Your task to perform on an android device: Find the nearest electronics store that's open Image 0: 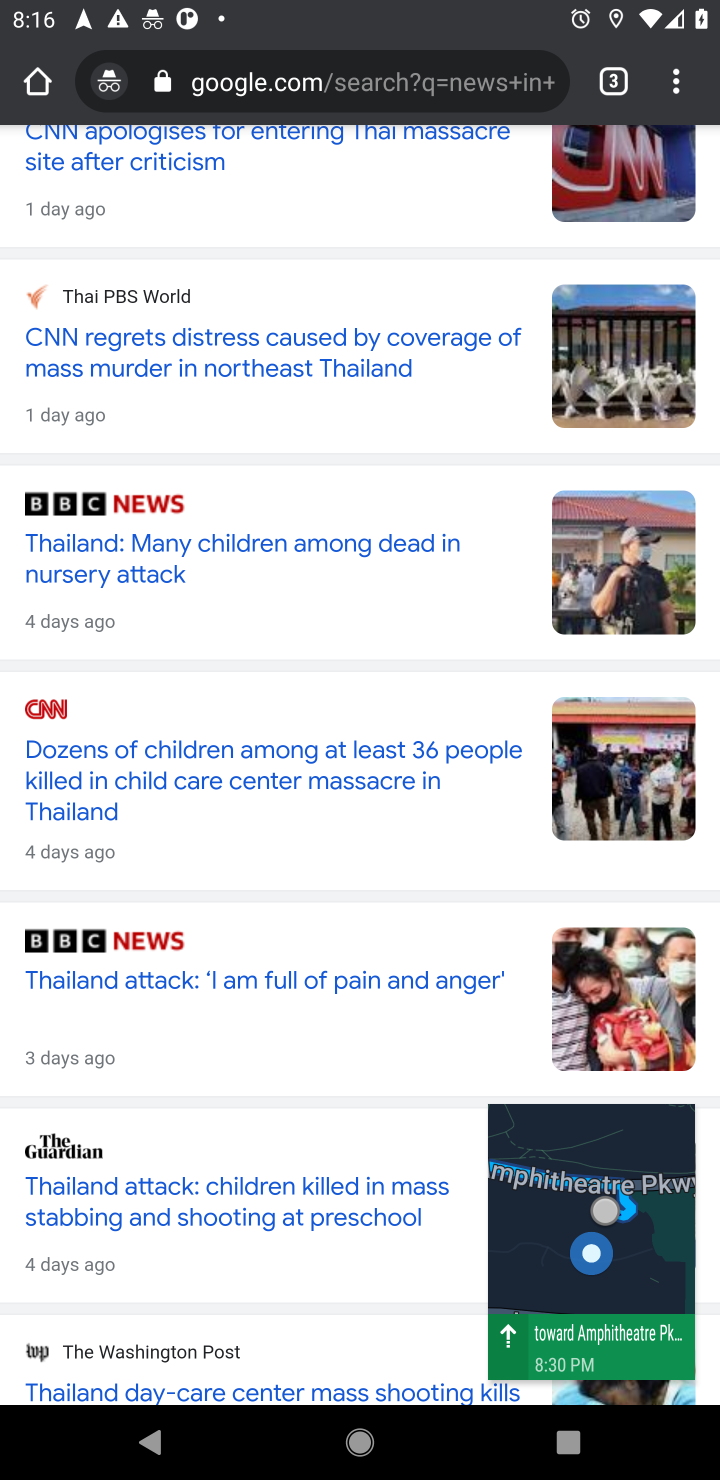
Step 0: press home button
Your task to perform on an android device: Find the nearest electronics store that's open Image 1: 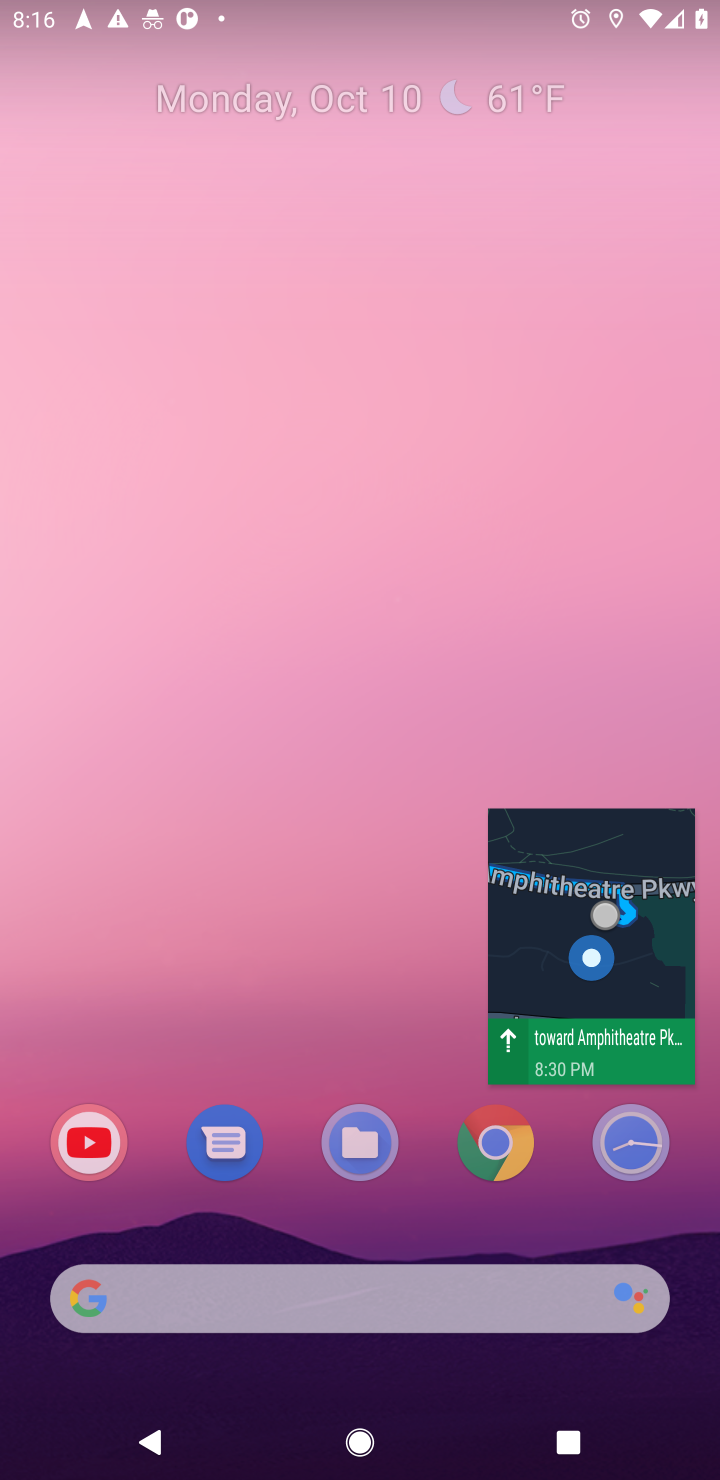
Step 1: drag from (598, 1159) to (511, 1122)
Your task to perform on an android device: Find the nearest electronics store that's open Image 2: 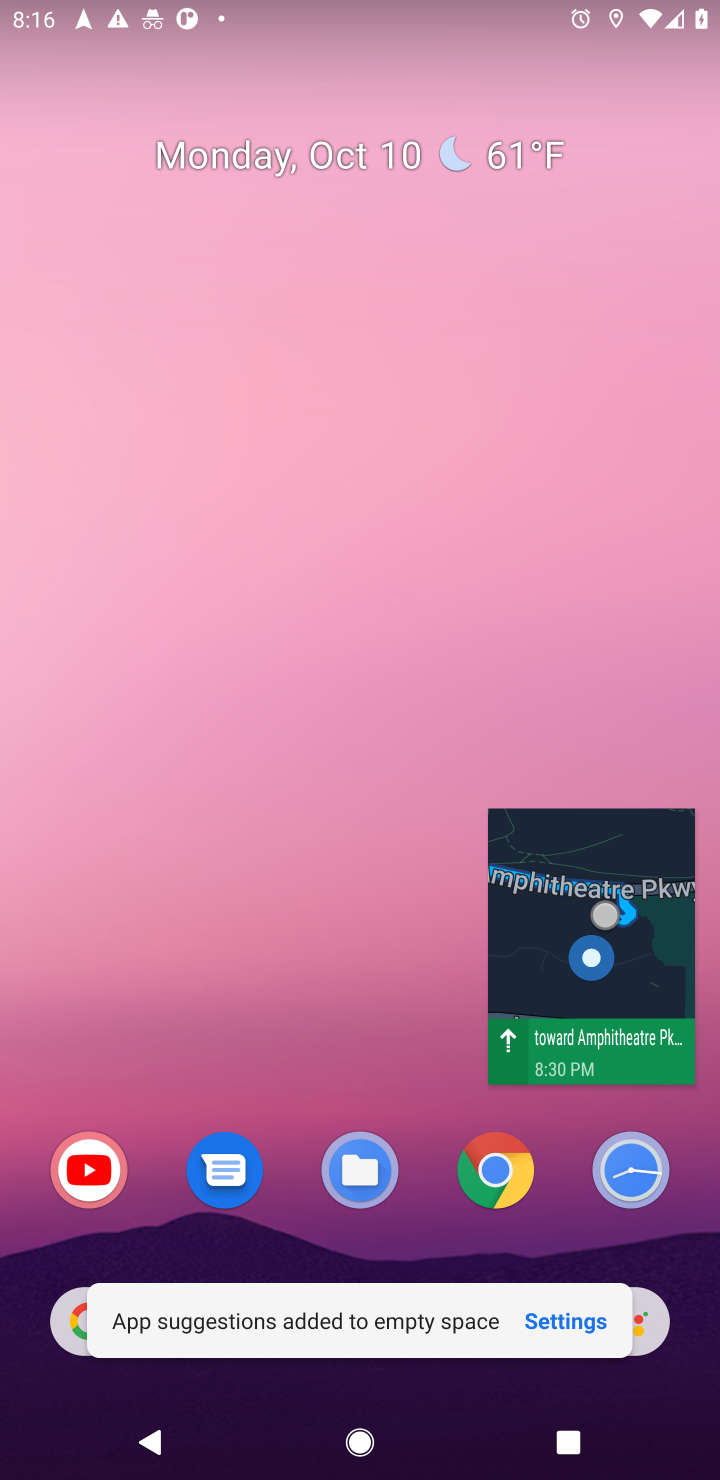
Step 2: drag from (569, 1008) to (366, 1364)
Your task to perform on an android device: Find the nearest electronics store that's open Image 3: 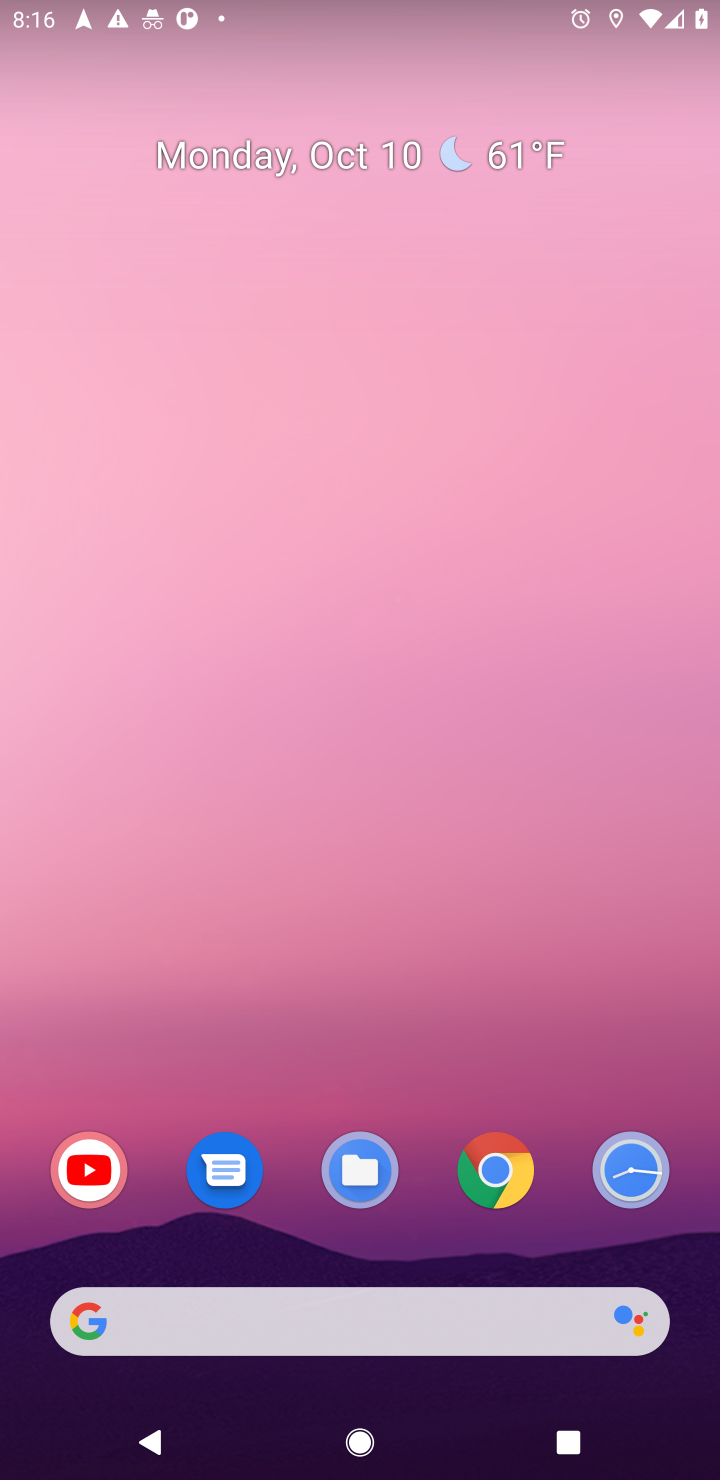
Step 3: click (366, 1364)
Your task to perform on an android device: Find the nearest electronics store that's open Image 4: 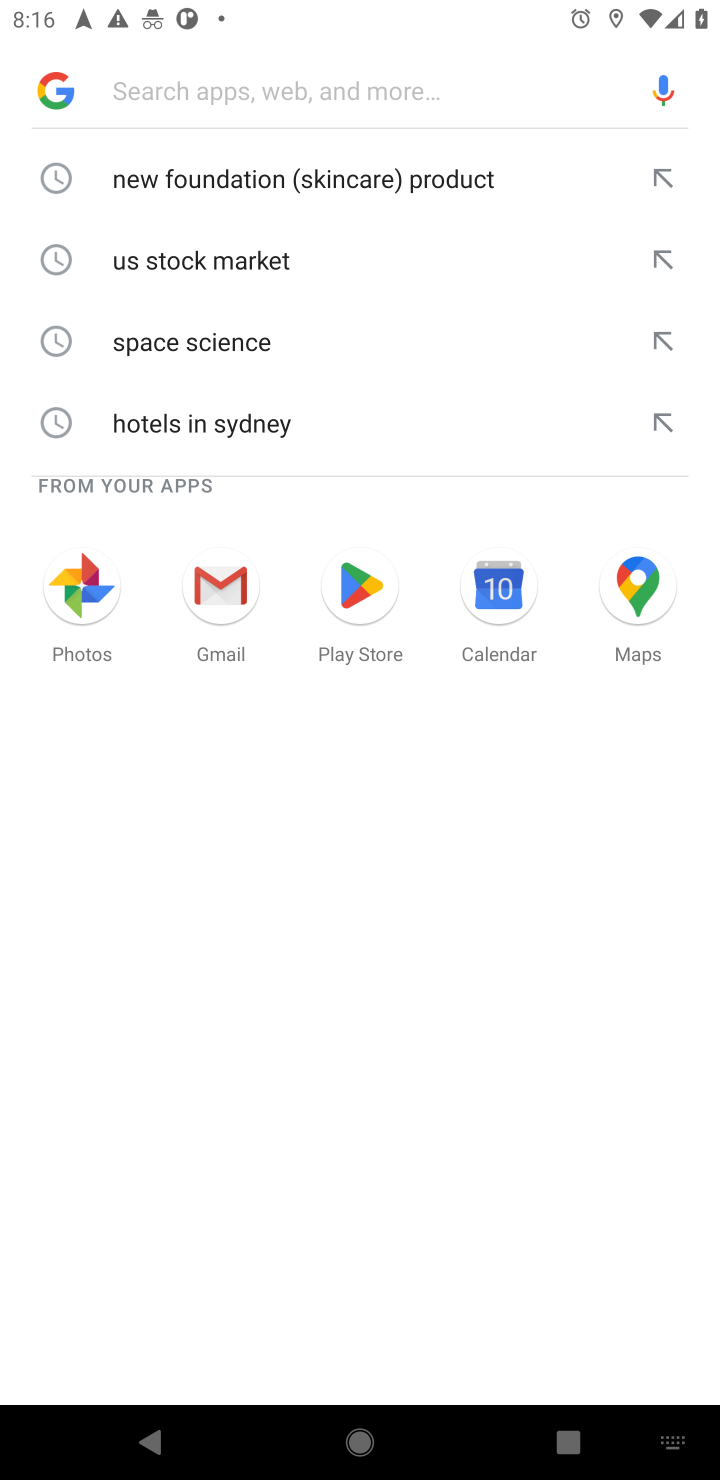
Step 4: press home button
Your task to perform on an android device: Find the nearest electronics store that's open Image 5: 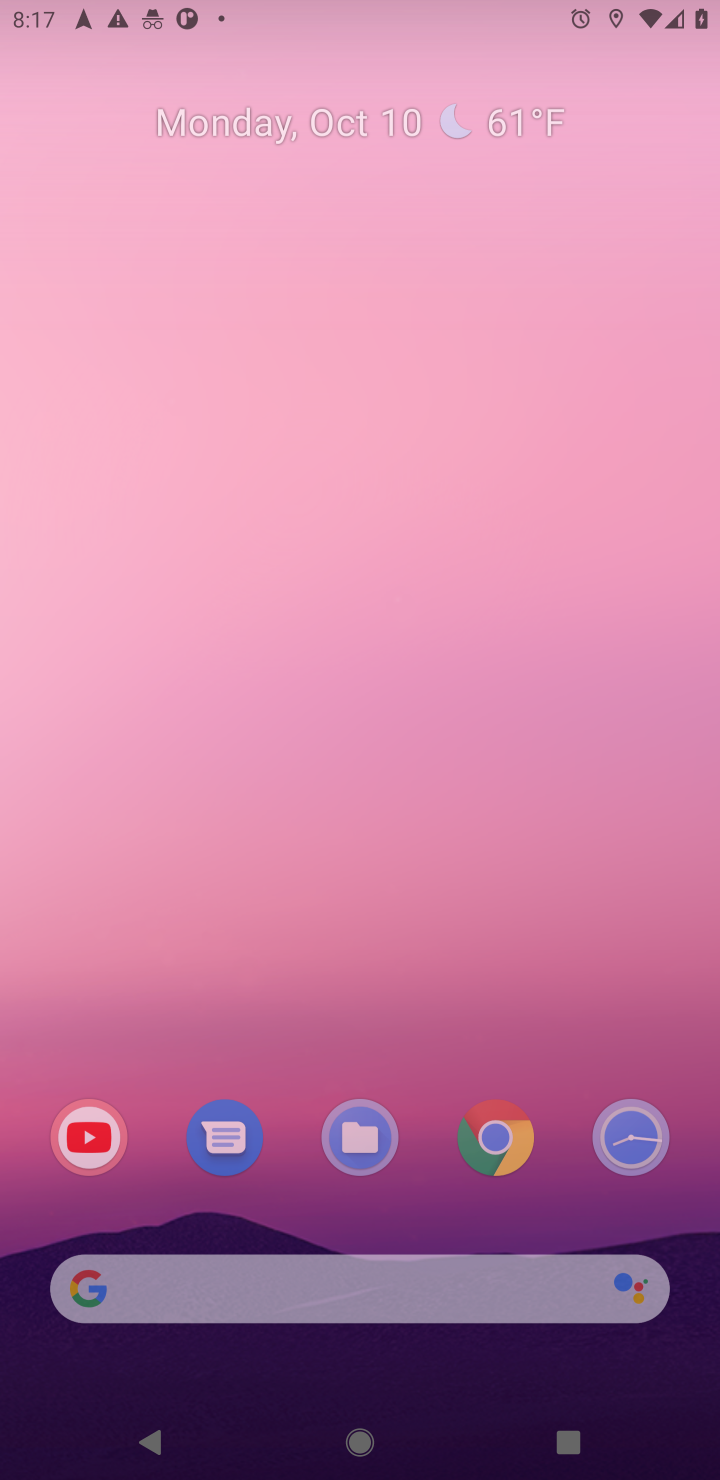
Step 5: press home button
Your task to perform on an android device: Find the nearest electronics store that's open Image 6: 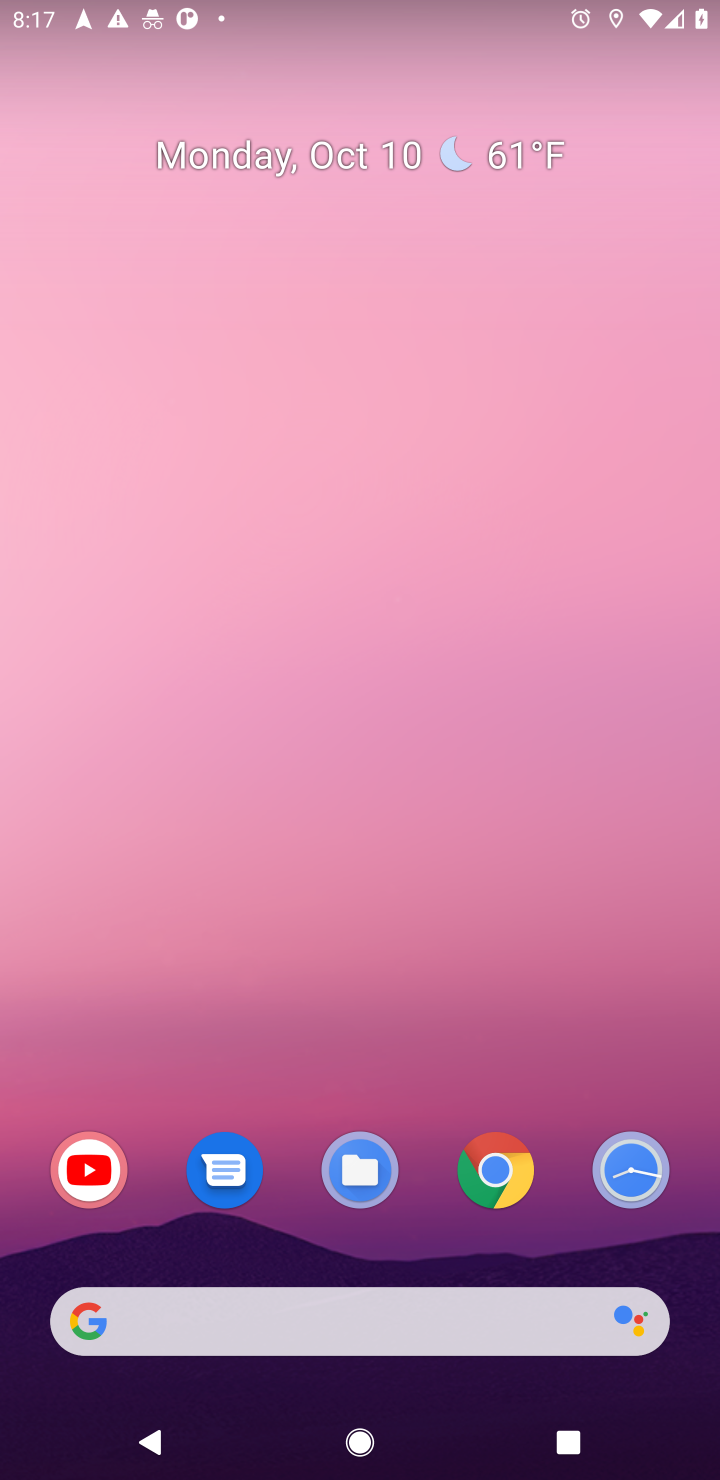
Step 6: click (493, 1179)
Your task to perform on an android device: Find the nearest electronics store that's open Image 7: 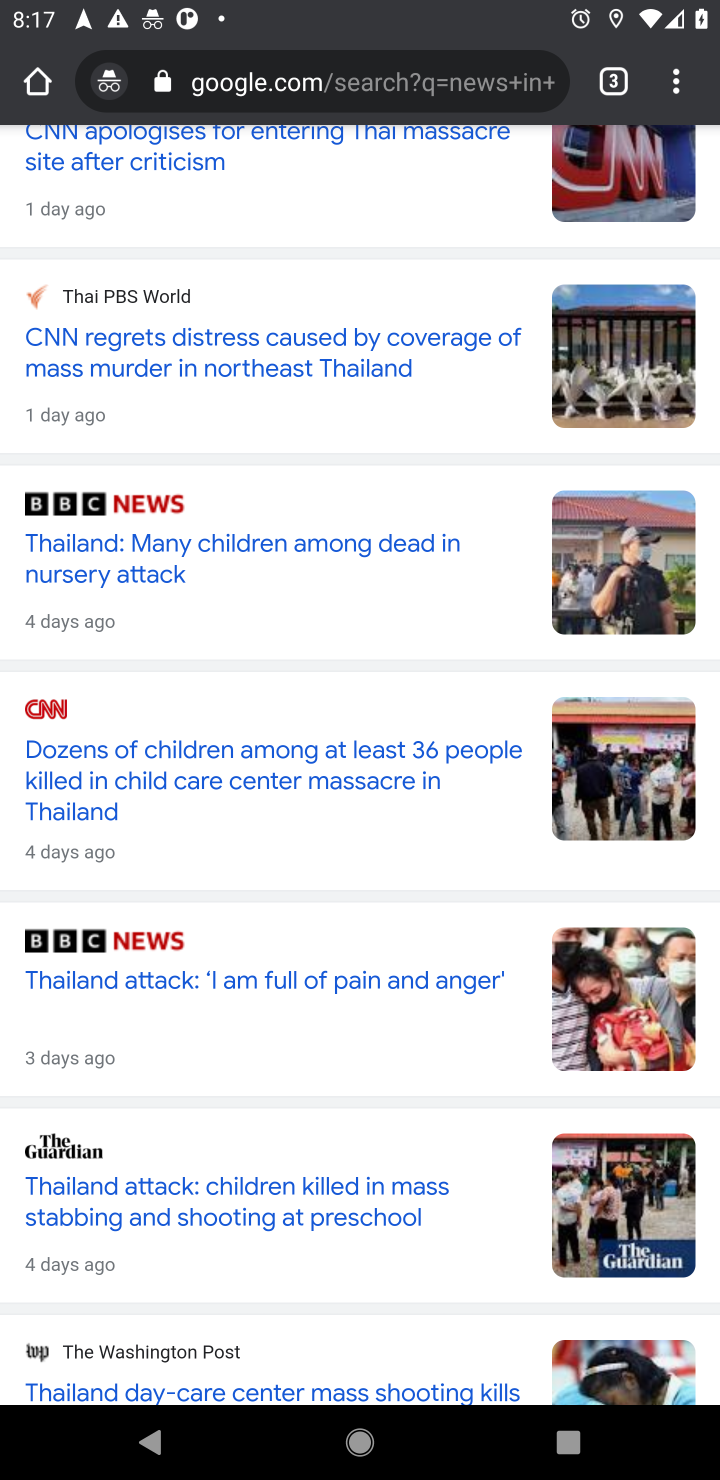
Step 7: click (478, 1169)
Your task to perform on an android device: Find the nearest electronics store that's open Image 8: 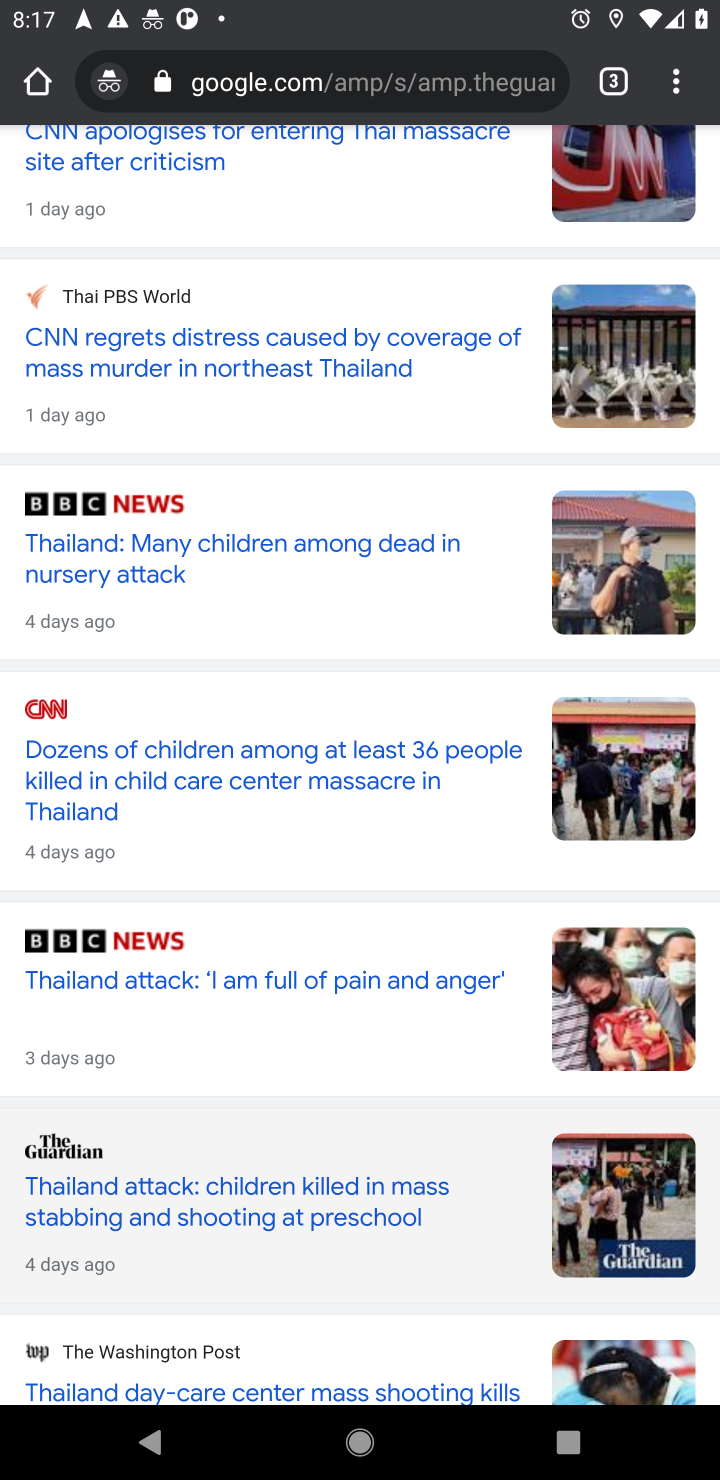
Step 8: click (511, 1186)
Your task to perform on an android device: Find the nearest electronics store that's open Image 9: 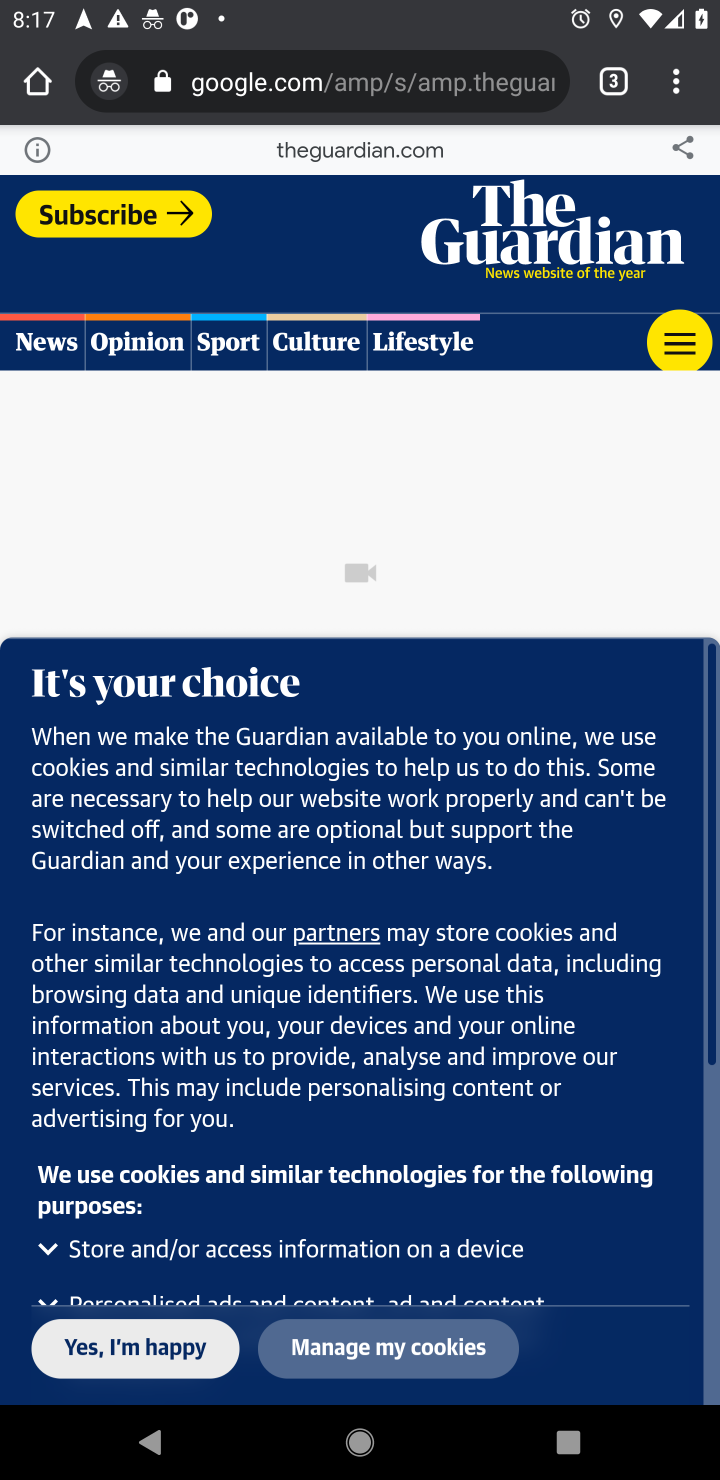
Step 9: click (430, 75)
Your task to perform on an android device: Find the nearest electronics store that's open Image 10: 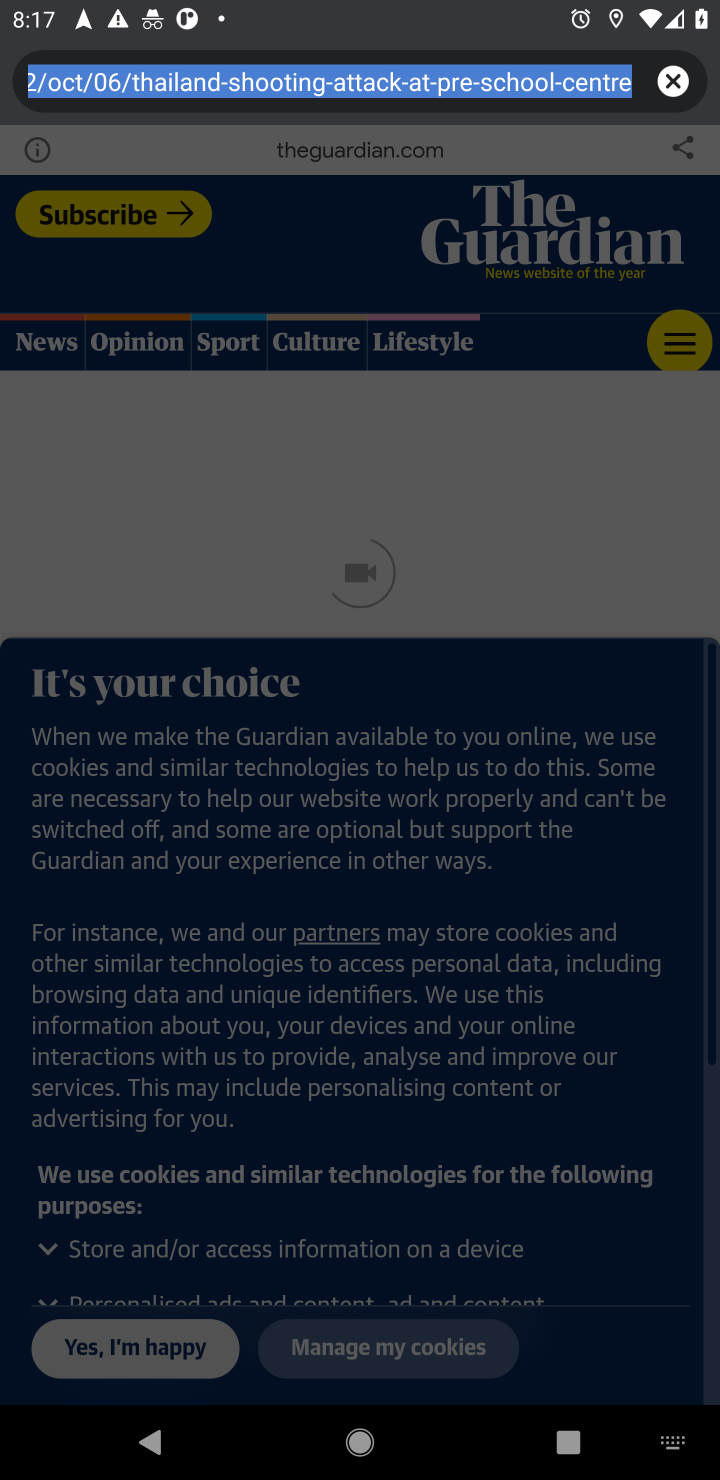
Step 10: type "Find the nearest electronics store that's open"
Your task to perform on an android device: Find the nearest electronics store that's open Image 11: 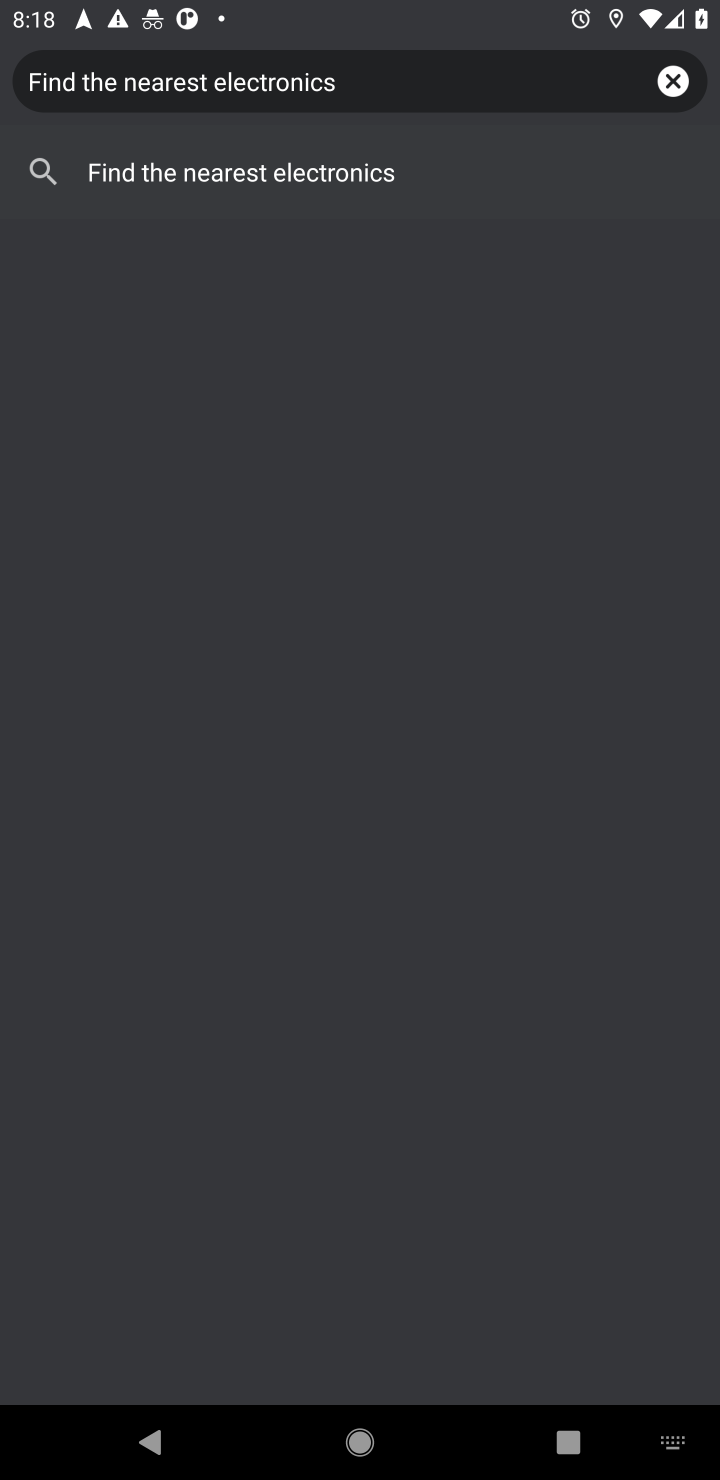
Step 11: type " store that's open"
Your task to perform on an android device: Find the nearest electronics store that's open Image 12: 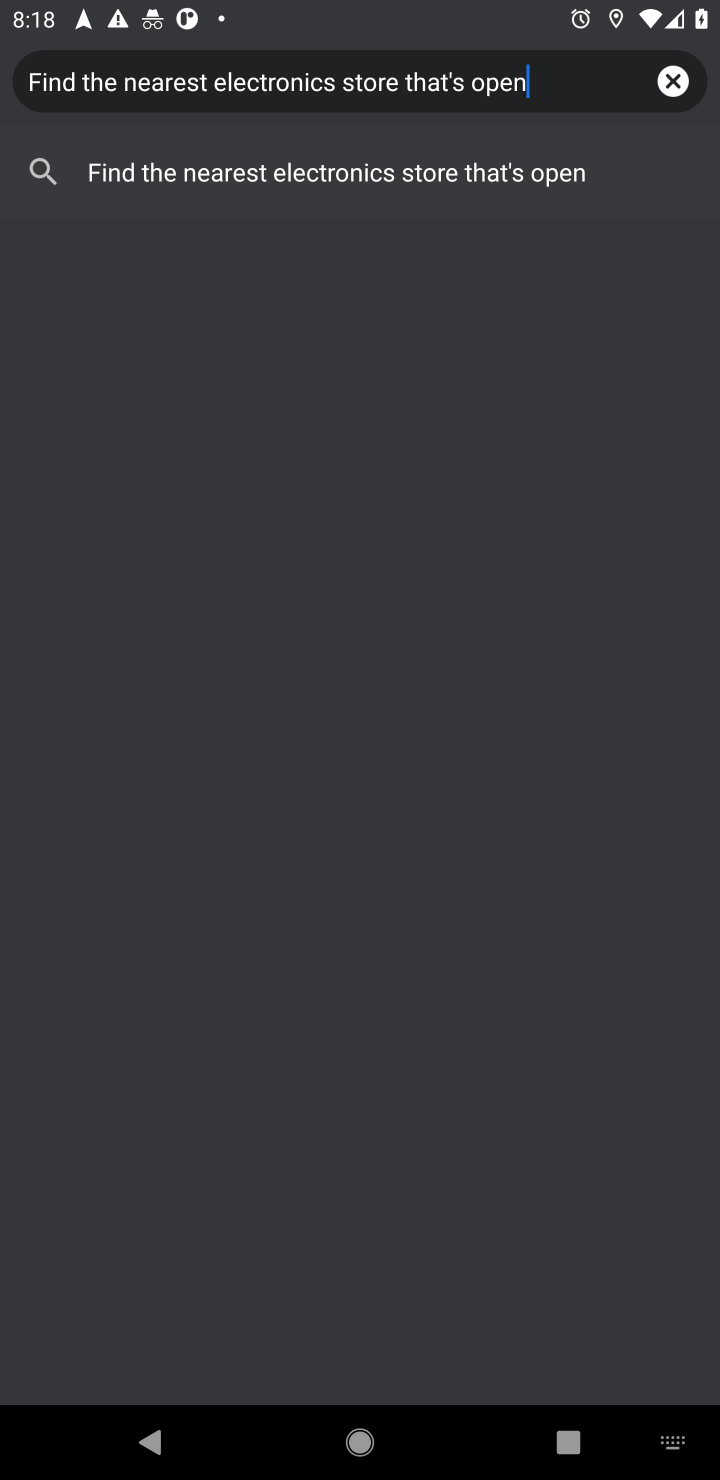
Step 12: click (560, 161)
Your task to perform on an android device: Find the nearest electronics store that's open Image 13: 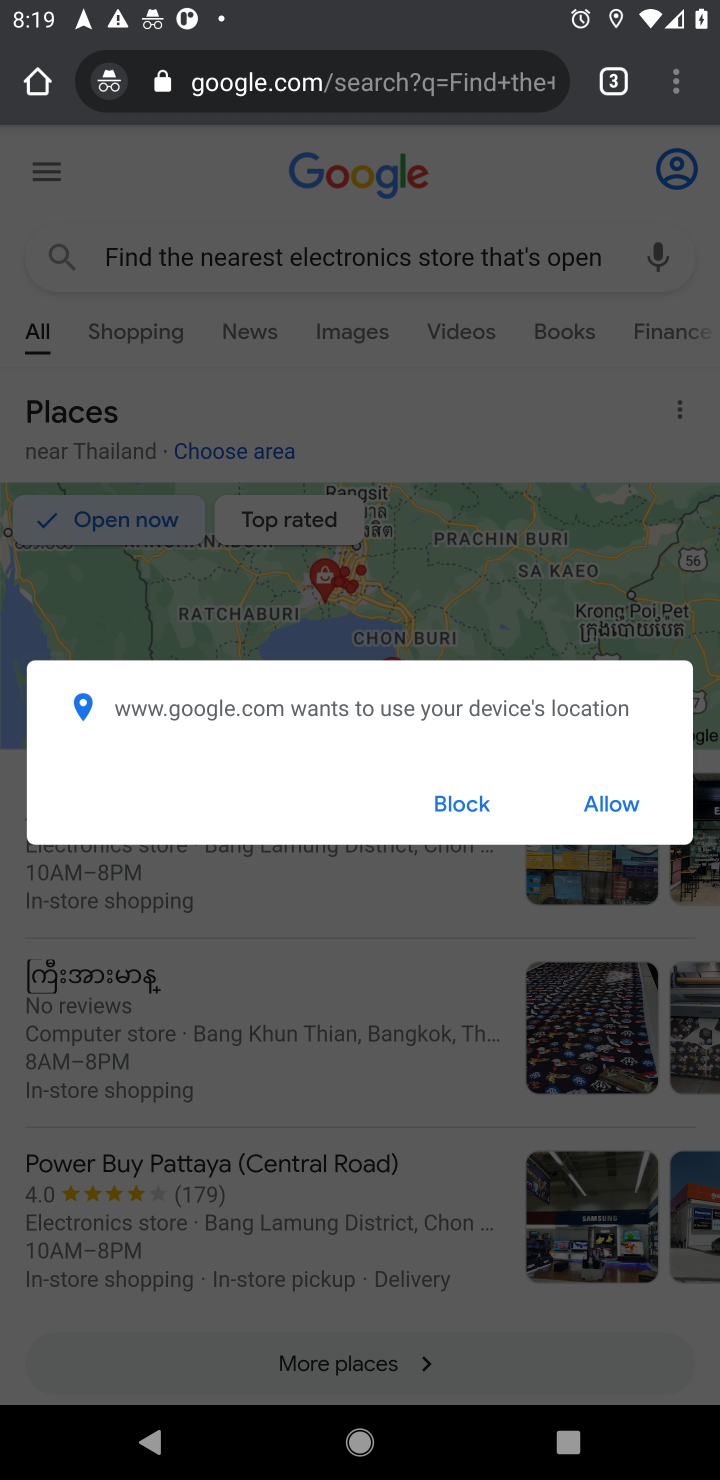
Step 13: click (609, 804)
Your task to perform on an android device: Find the nearest electronics store that's open Image 14: 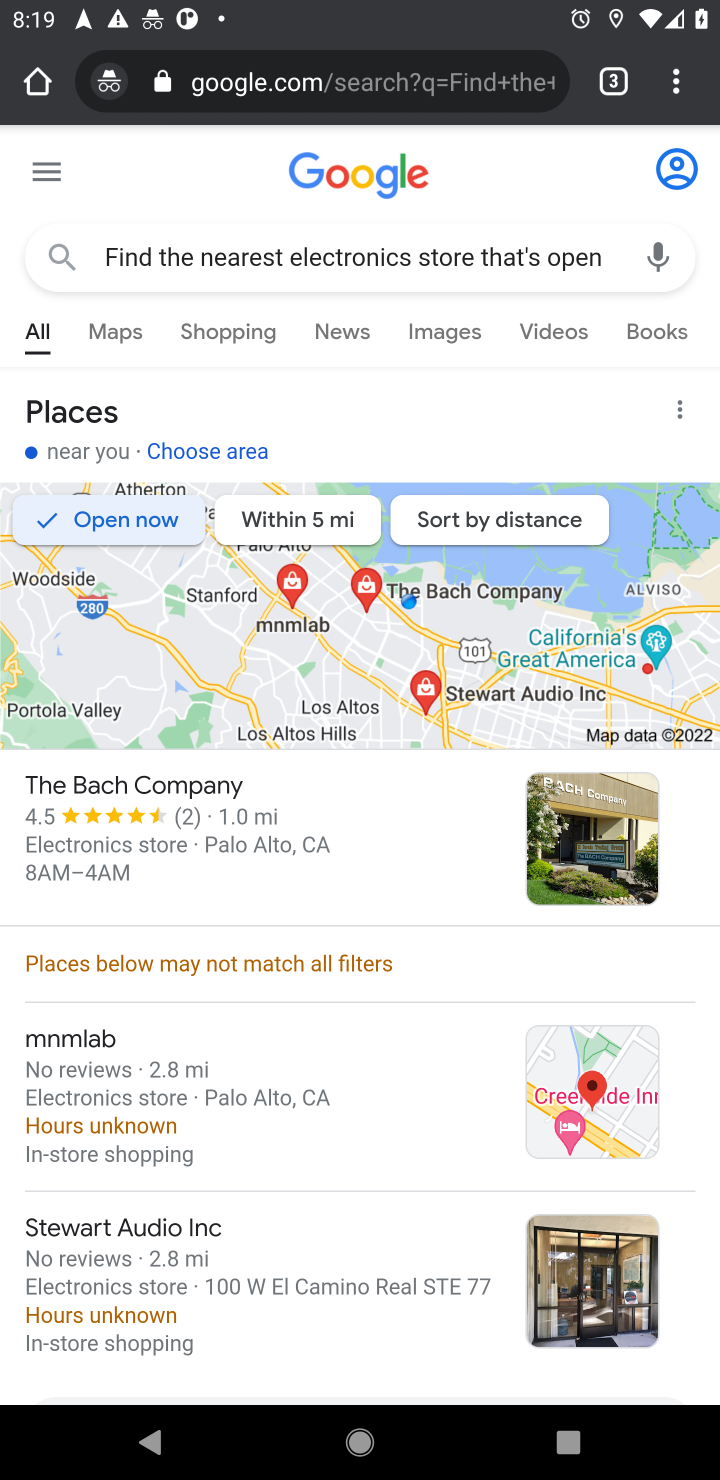
Step 14: task complete